Your task to perform on an android device: Search for usb-b on target.com, select the first entry, and add it to the cart. Image 0: 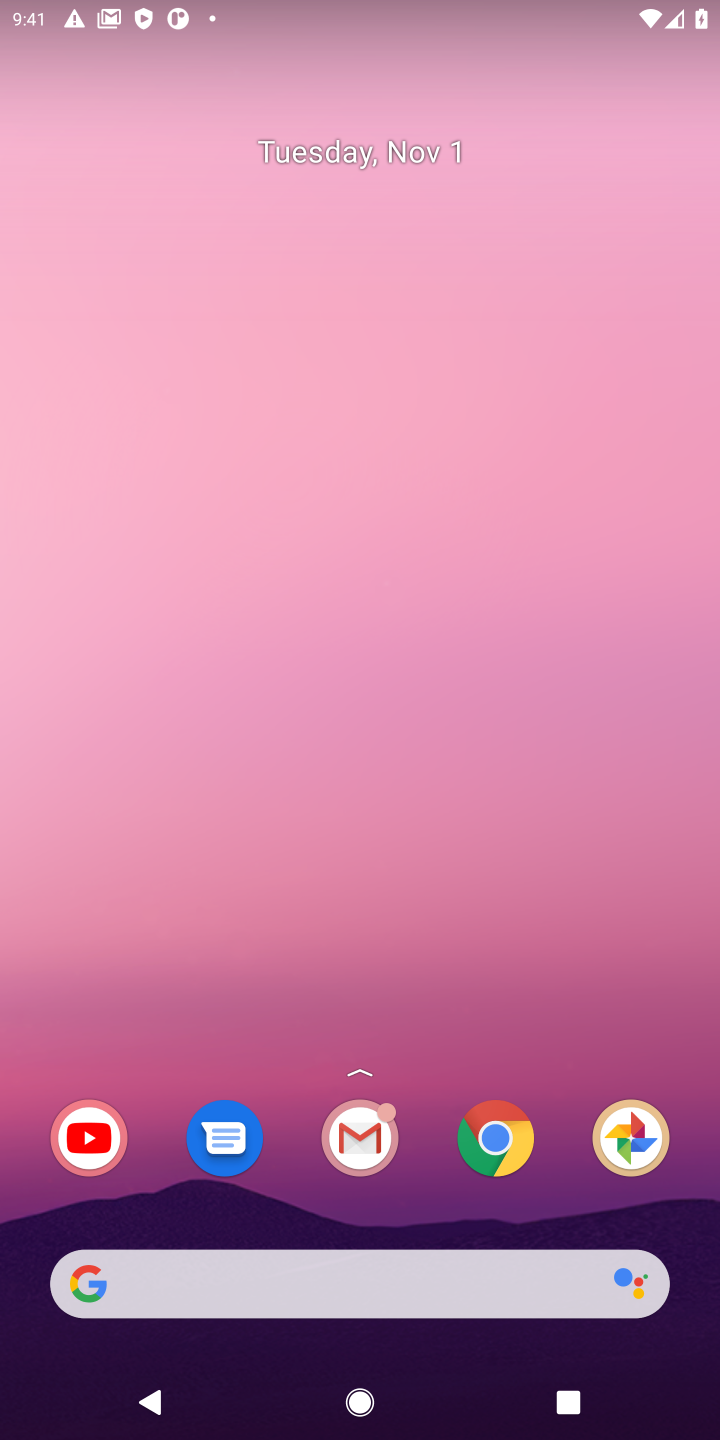
Step 0: click (488, 1147)
Your task to perform on an android device: Search for usb-b on target.com, select the first entry, and add it to the cart. Image 1: 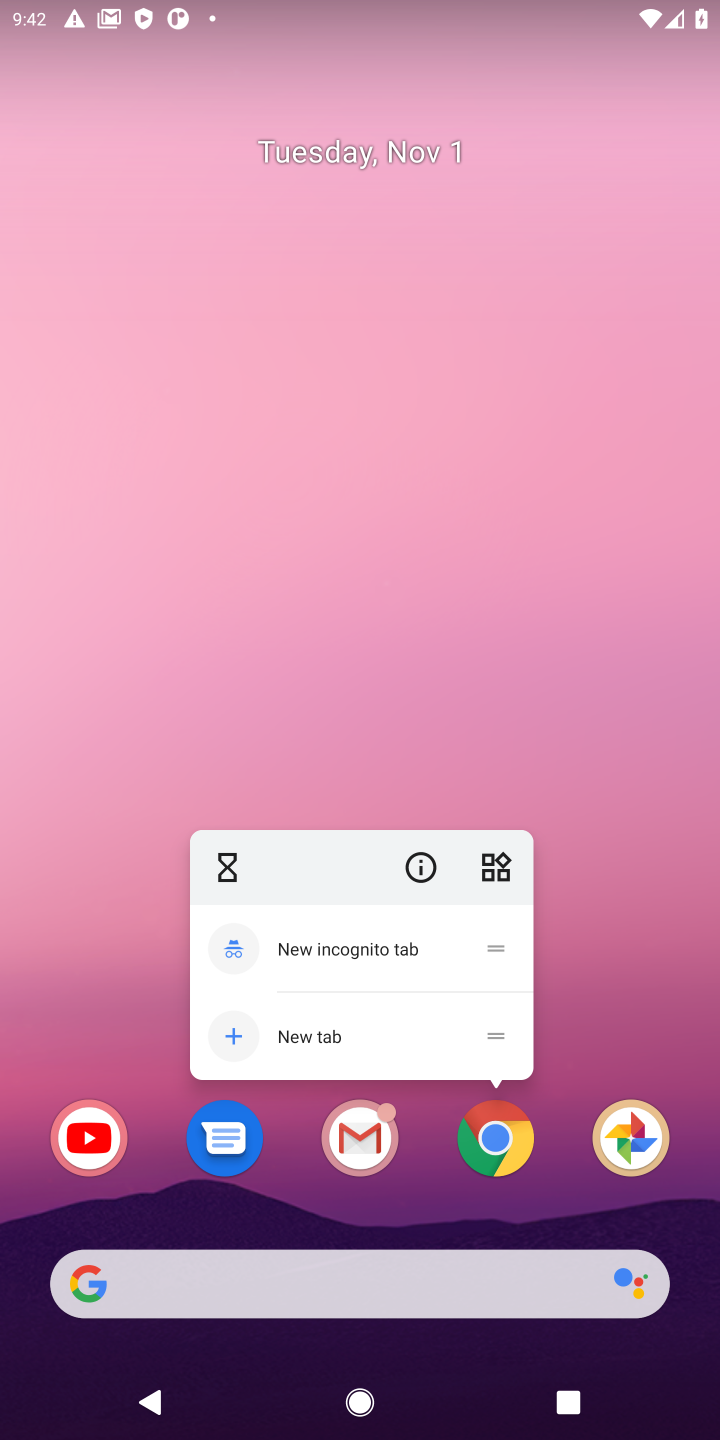
Step 1: click (488, 1147)
Your task to perform on an android device: Search for usb-b on target.com, select the first entry, and add it to the cart. Image 2: 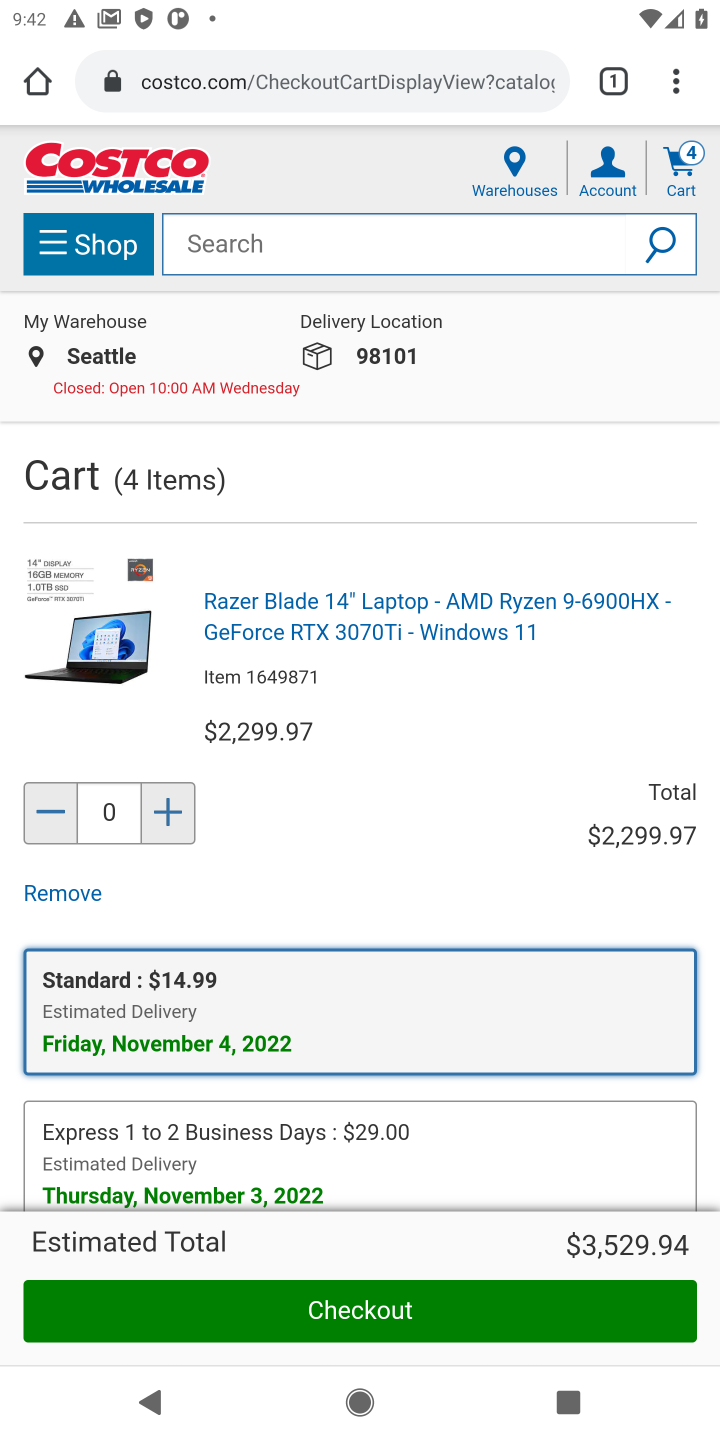
Step 2: click (352, 81)
Your task to perform on an android device: Search for usb-b on target.com, select the first entry, and add it to the cart. Image 3: 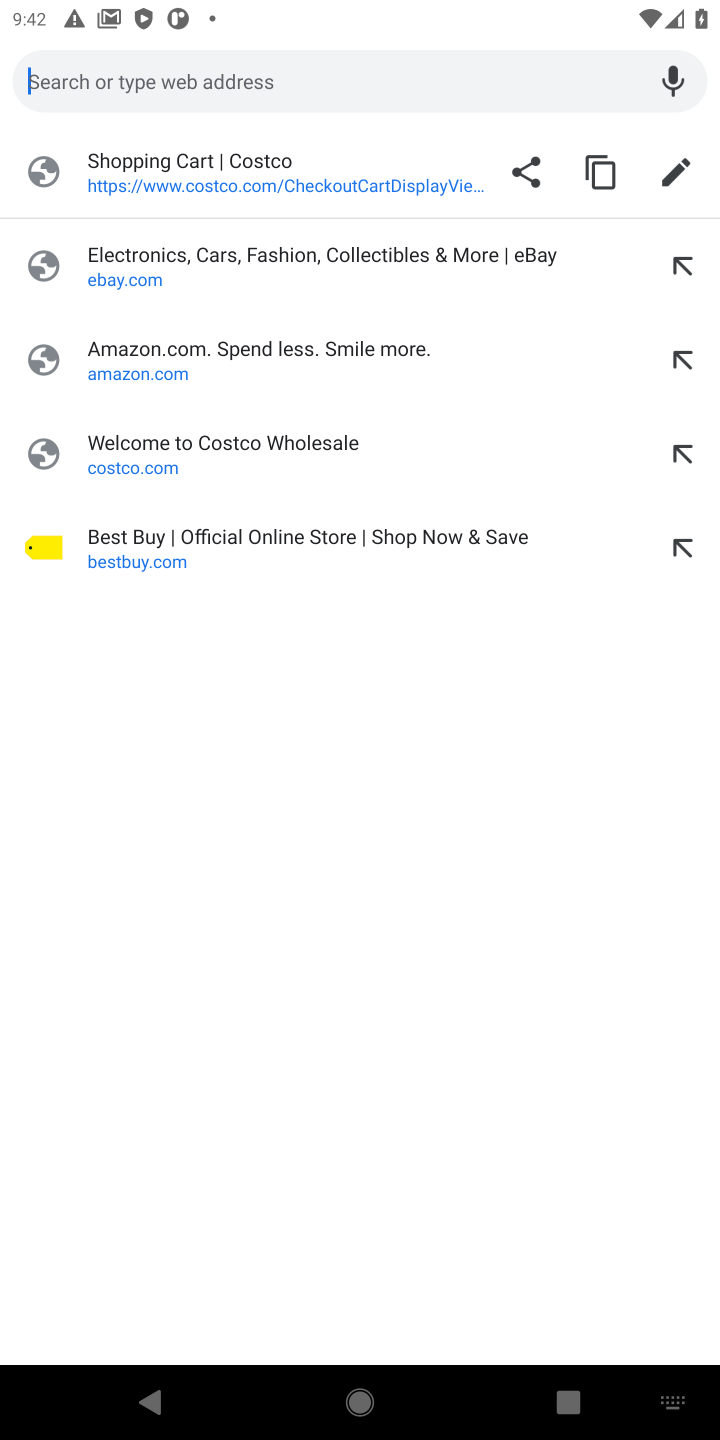
Step 3: click (189, 84)
Your task to perform on an android device: Search for usb-b on target.com, select the first entry, and add it to the cart. Image 4: 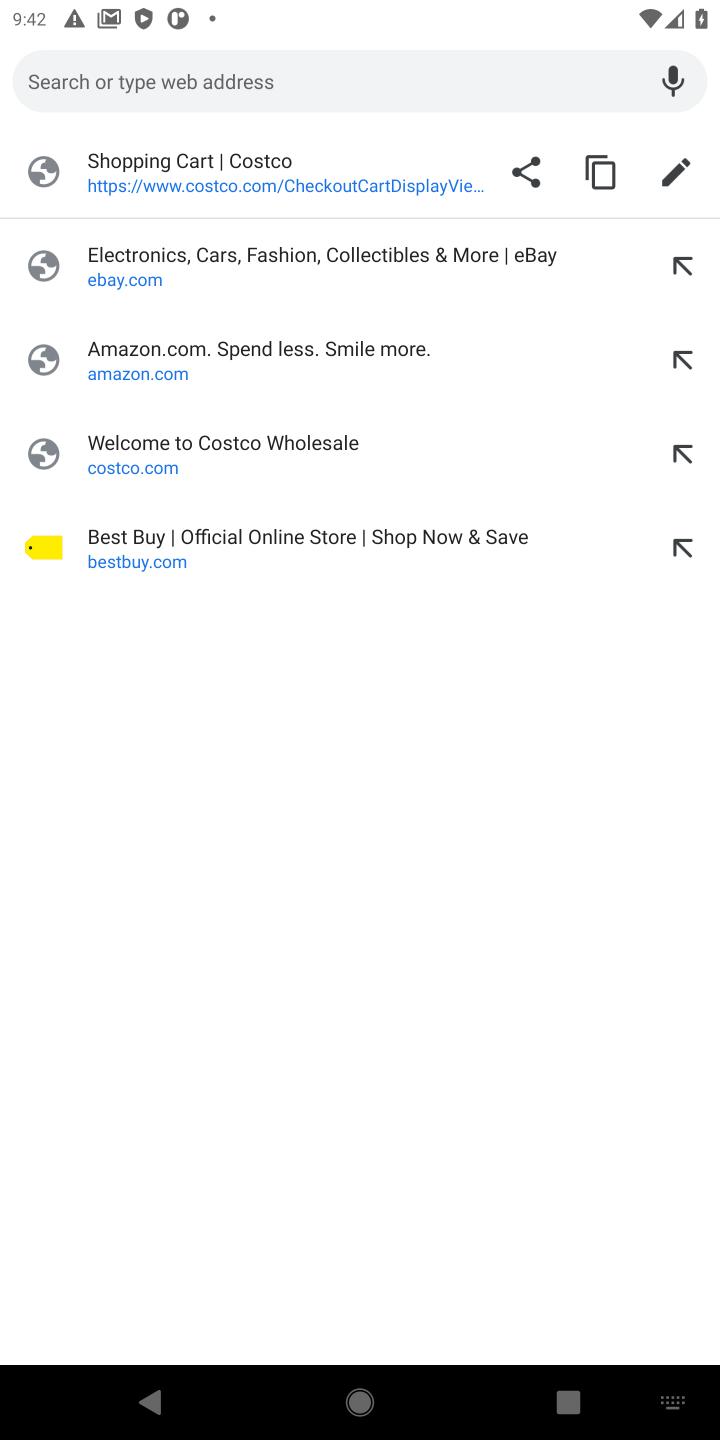
Step 4: type "target.com"
Your task to perform on an android device: Search for usb-b on target.com, select the first entry, and add it to the cart. Image 5: 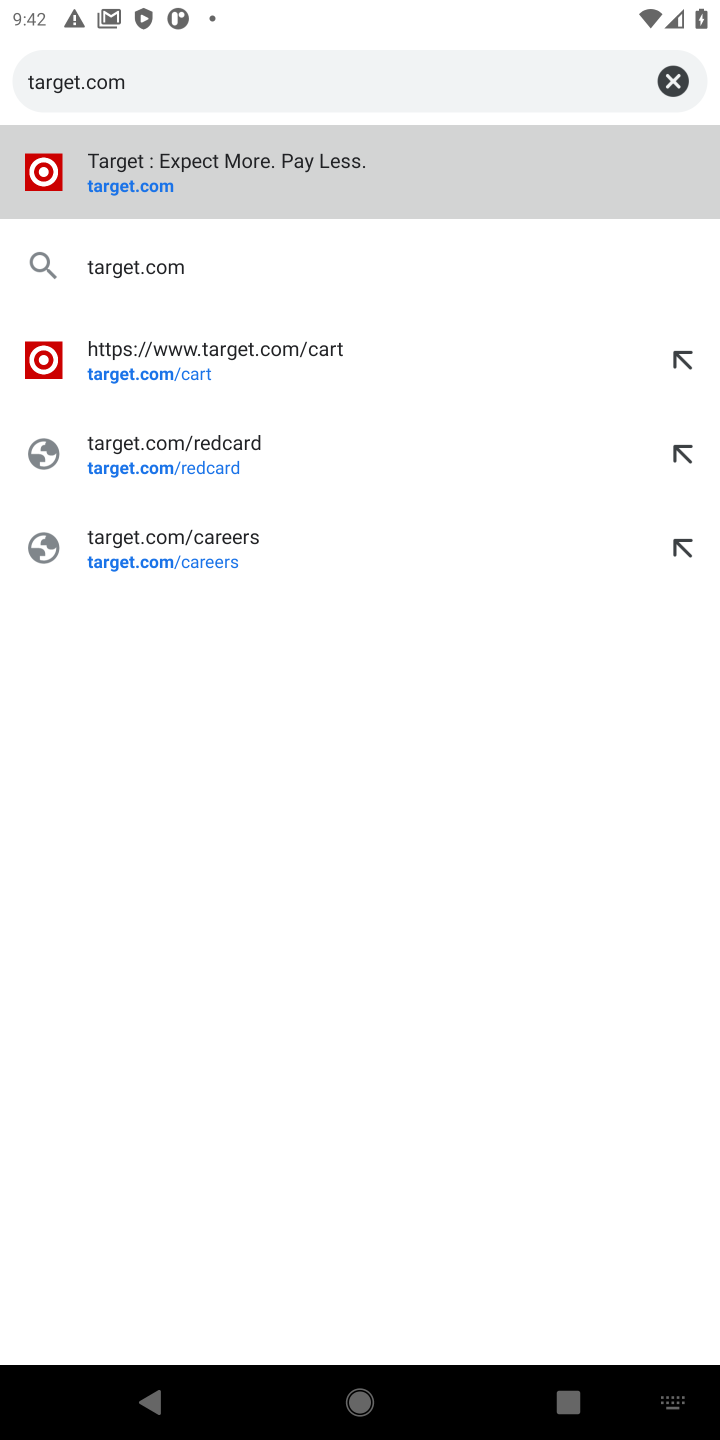
Step 5: click (126, 180)
Your task to perform on an android device: Search for usb-b on target.com, select the first entry, and add it to the cart. Image 6: 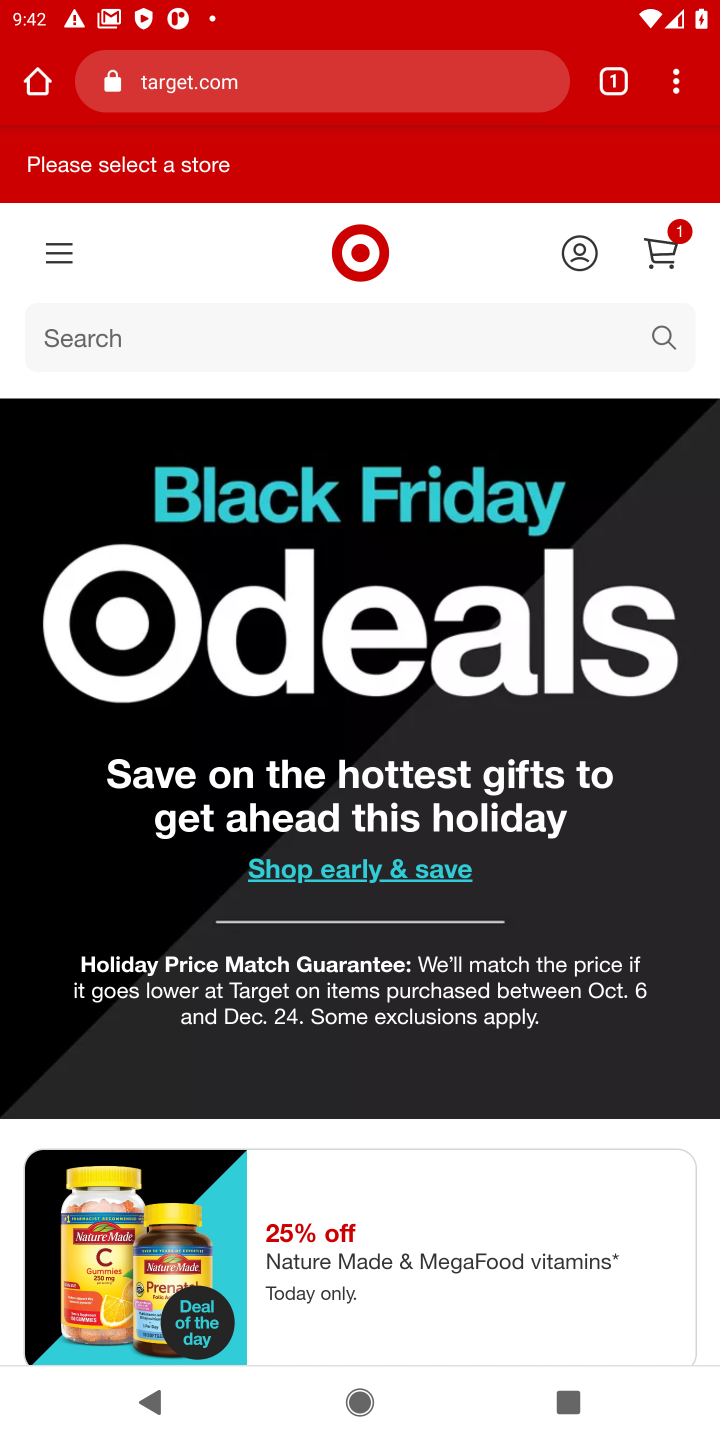
Step 6: click (55, 346)
Your task to perform on an android device: Search for usb-b on target.com, select the first entry, and add it to the cart. Image 7: 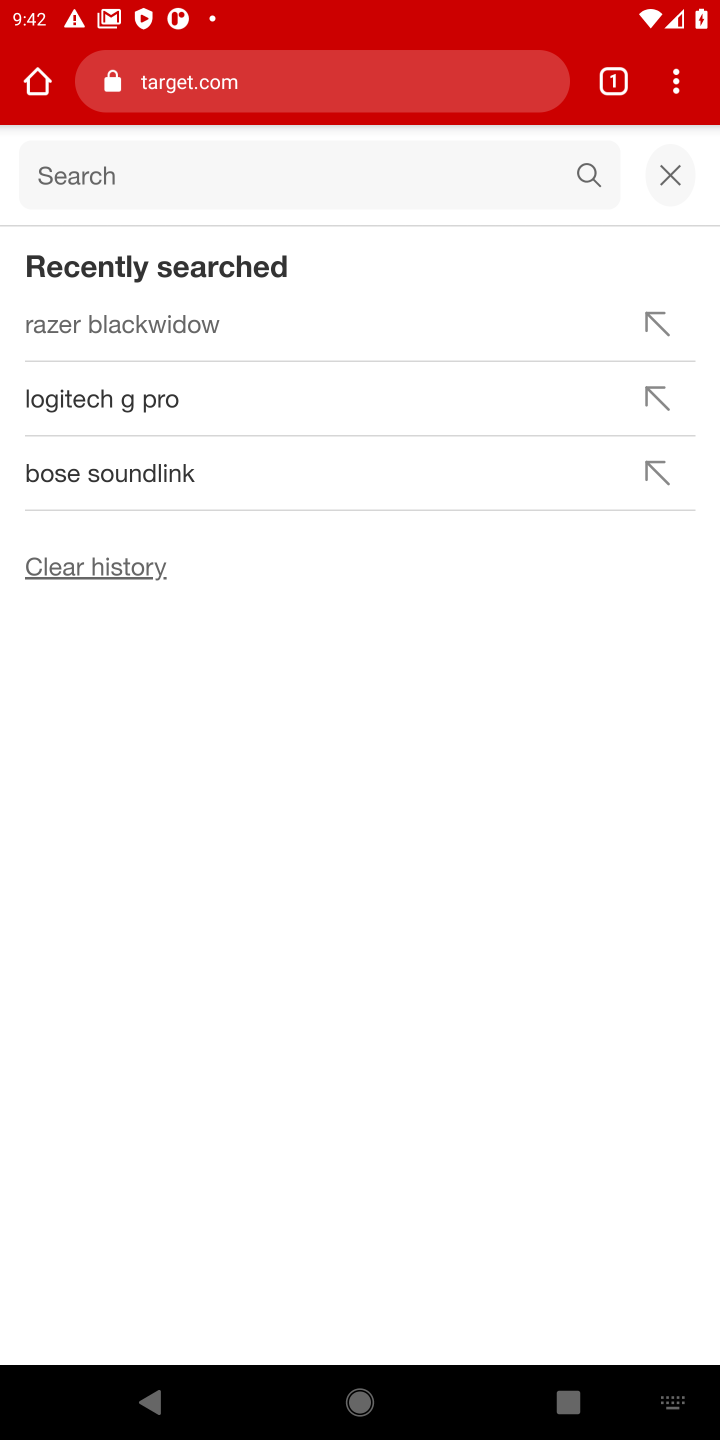
Step 7: type "usb-b"
Your task to perform on an android device: Search for usb-b on target.com, select the first entry, and add it to the cart. Image 8: 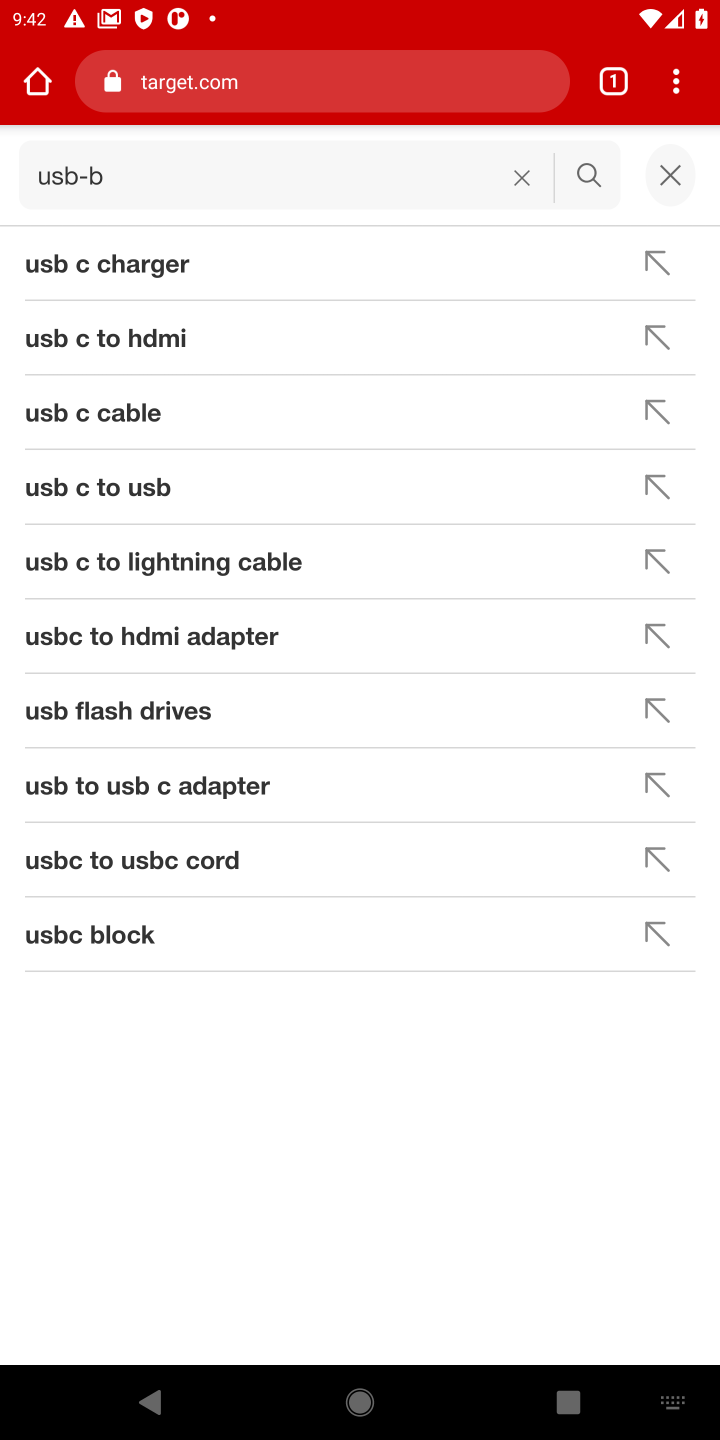
Step 8: click (592, 177)
Your task to perform on an android device: Search for usb-b on target.com, select the first entry, and add it to the cart. Image 9: 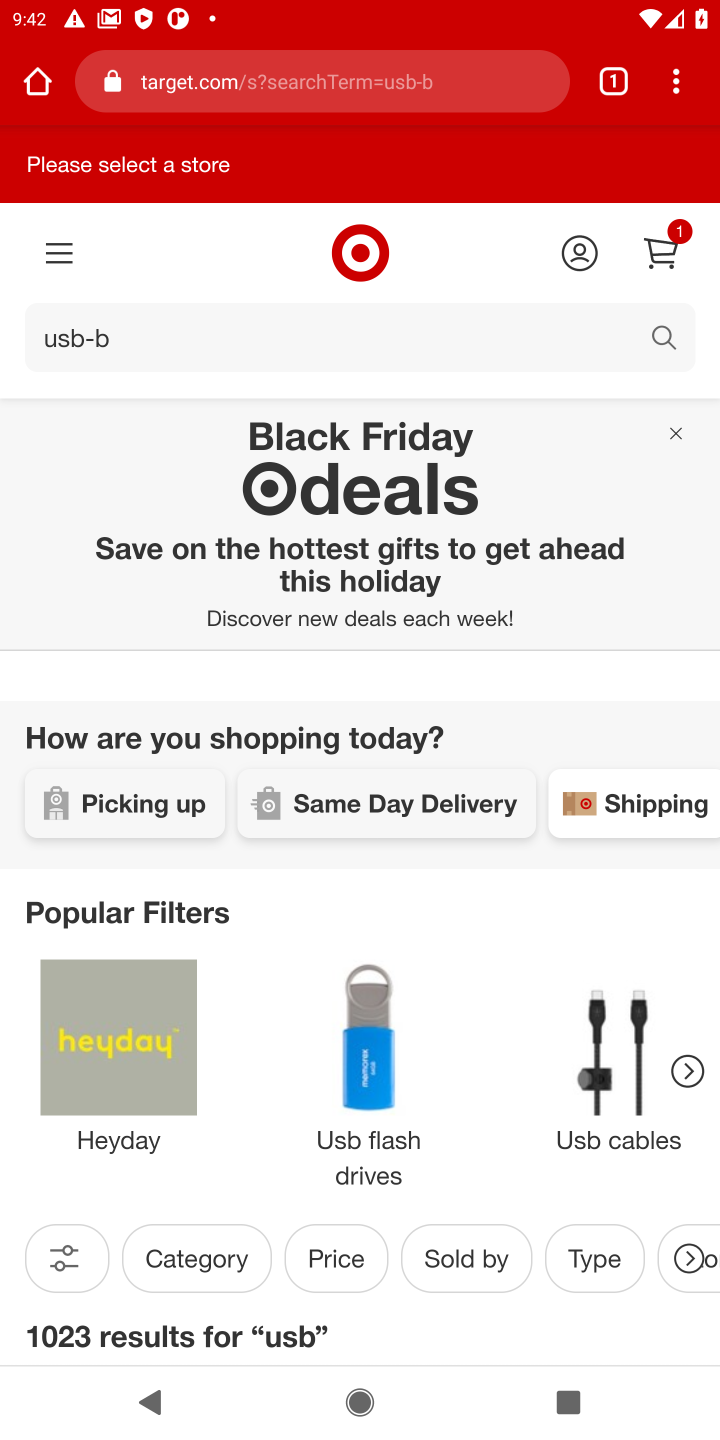
Step 9: task complete